Your task to perform on an android device: change the clock display to analog Image 0: 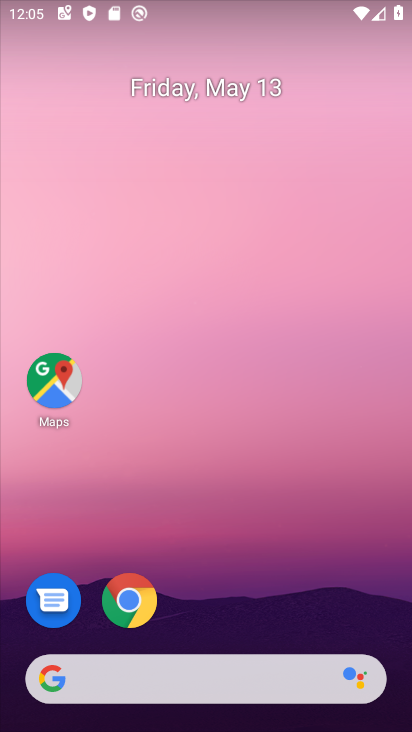
Step 0: drag from (259, 590) to (244, 141)
Your task to perform on an android device: change the clock display to analog Image 1: 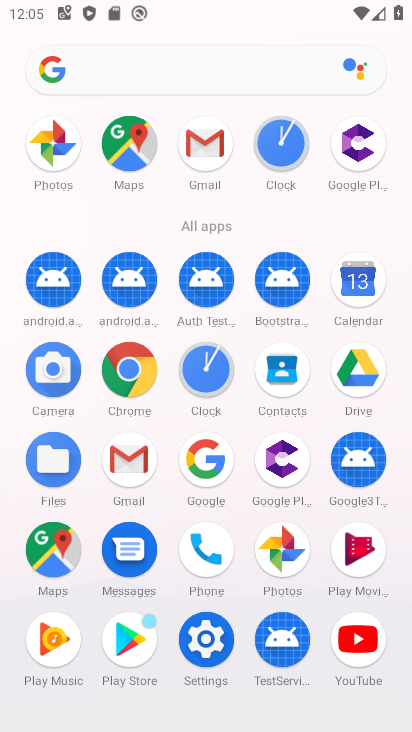
Step 1: click (215, 384)
Your task to perform on an android device: change the clock display to analog Image 2: 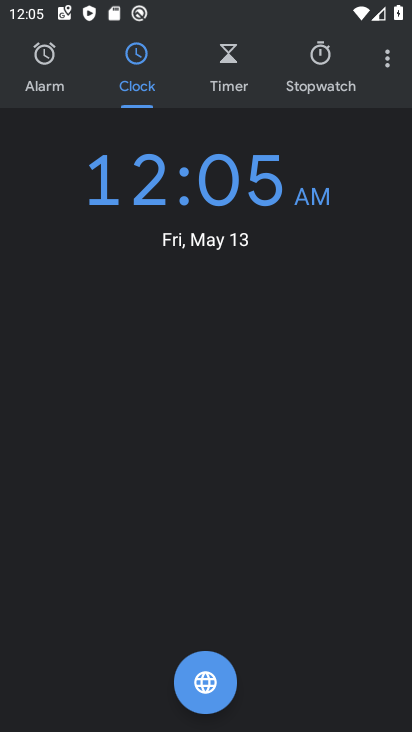
Step 2: click (380, 64)
Your task to perform on an android device: change the clock display to analog Image 3: 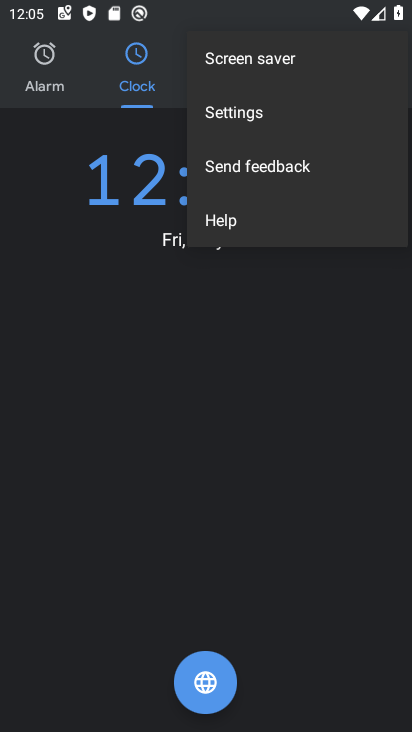
Step 3: click (264, 117)
Your task to perform on an android device: change the clock display to analog Image 4: 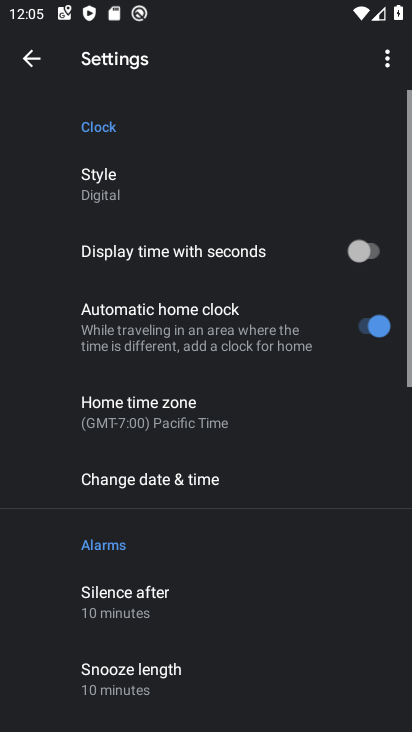
Step 4: click (122, 190)
Your task to perform on an android device: change the clock display to analog Image 5: 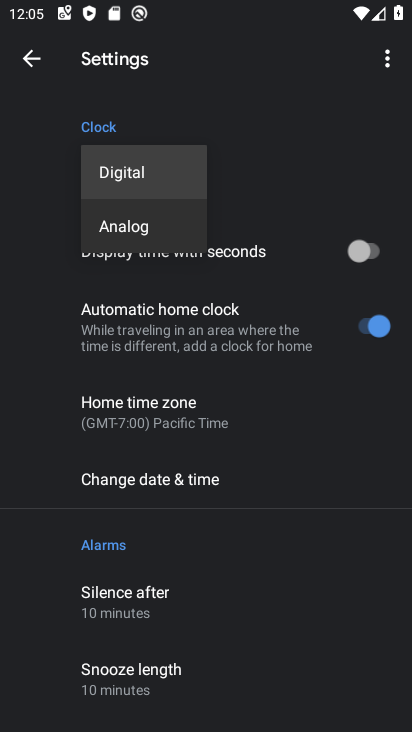
Step 5: click (146, 230)
Your task to perform on an android device: change the clock display to analog Image 6: 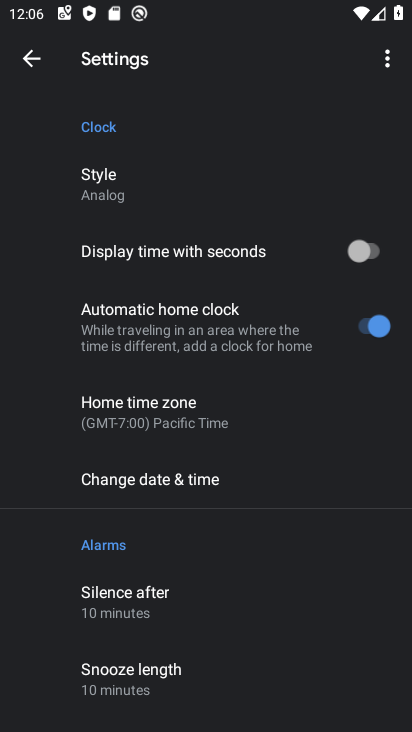
Step 6: task complete